Your task to perform on an android device: open app "Nova Launcher" (install if not already installed) Image 0: 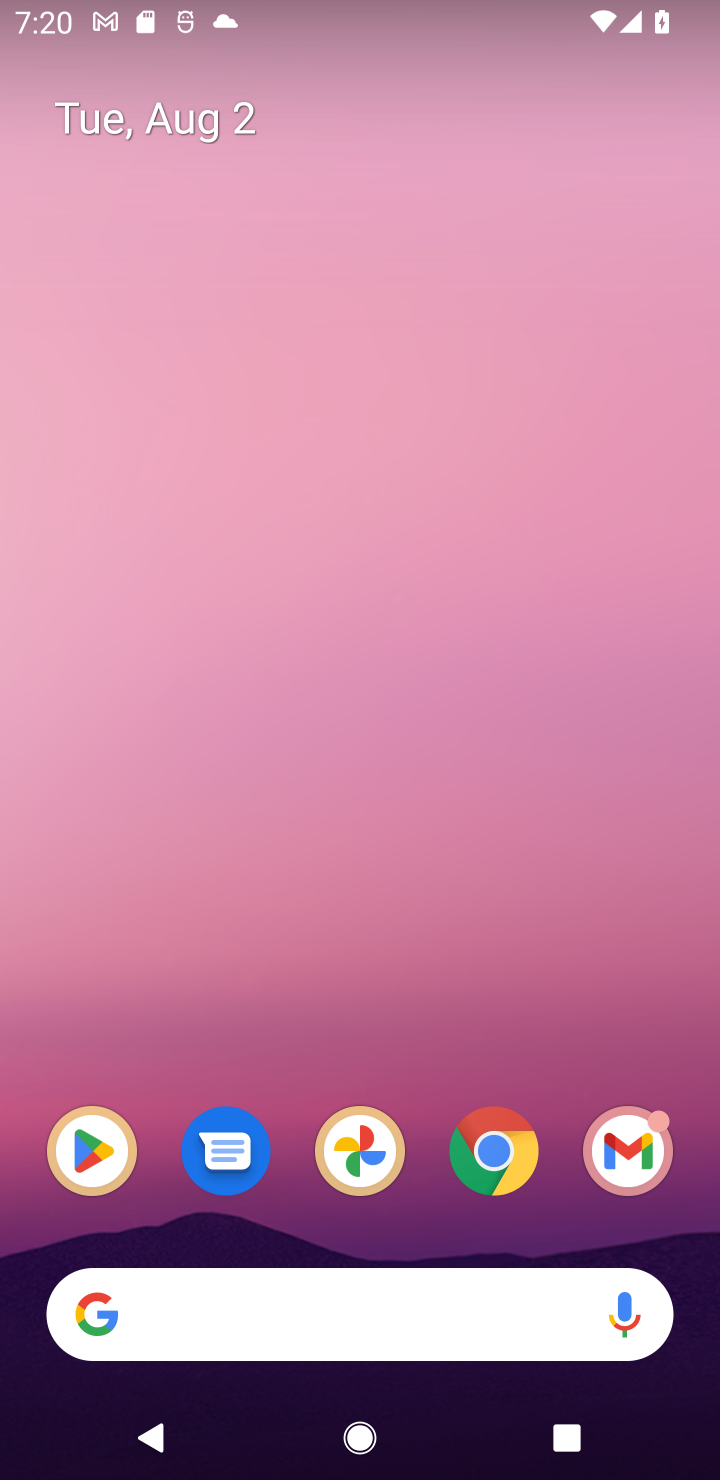
Step 0: click (90, 1154)
Your task to perform on an android device: open app "Nova Launcher" (install if not already installed) Image 1: 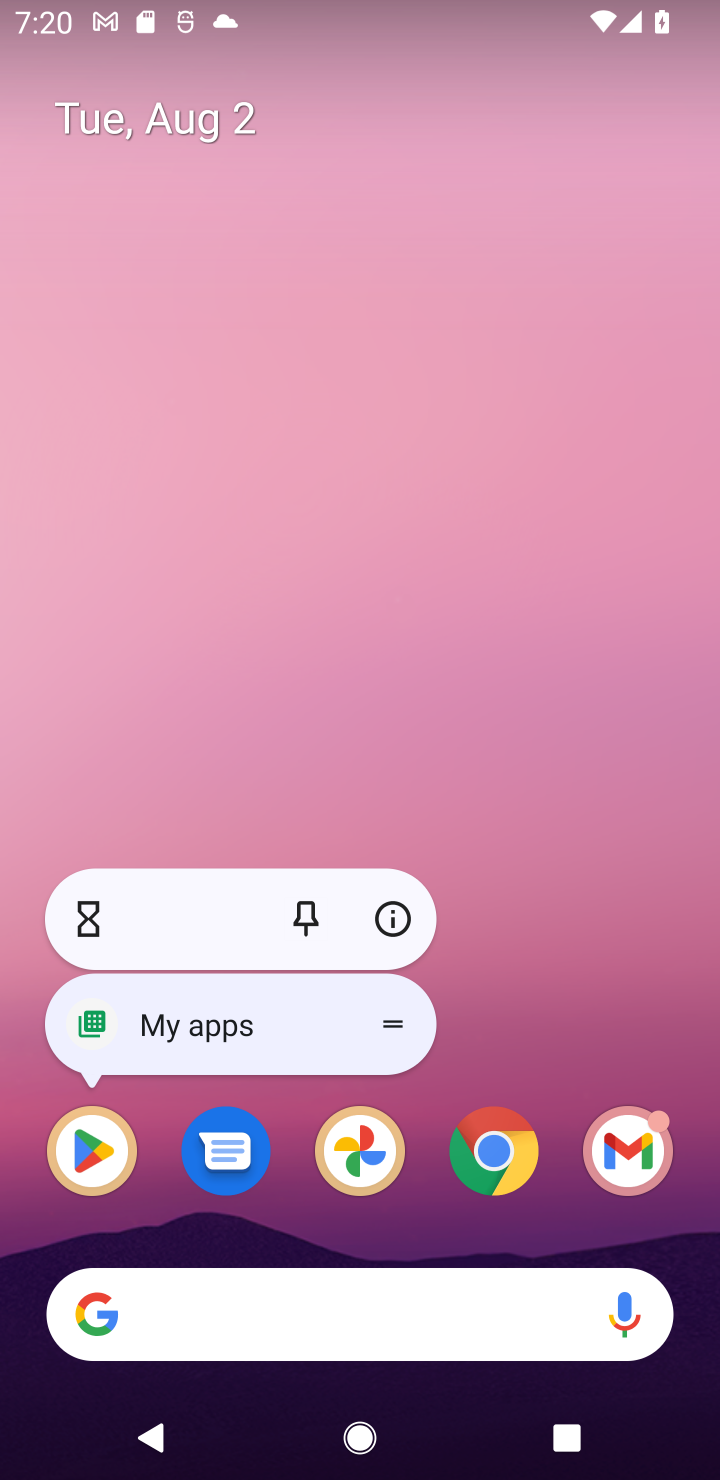
Step 1: click (90, 1154)
Your task to perform on an android device: open app "Nova Launcher" (install if not already installed) Image 2: 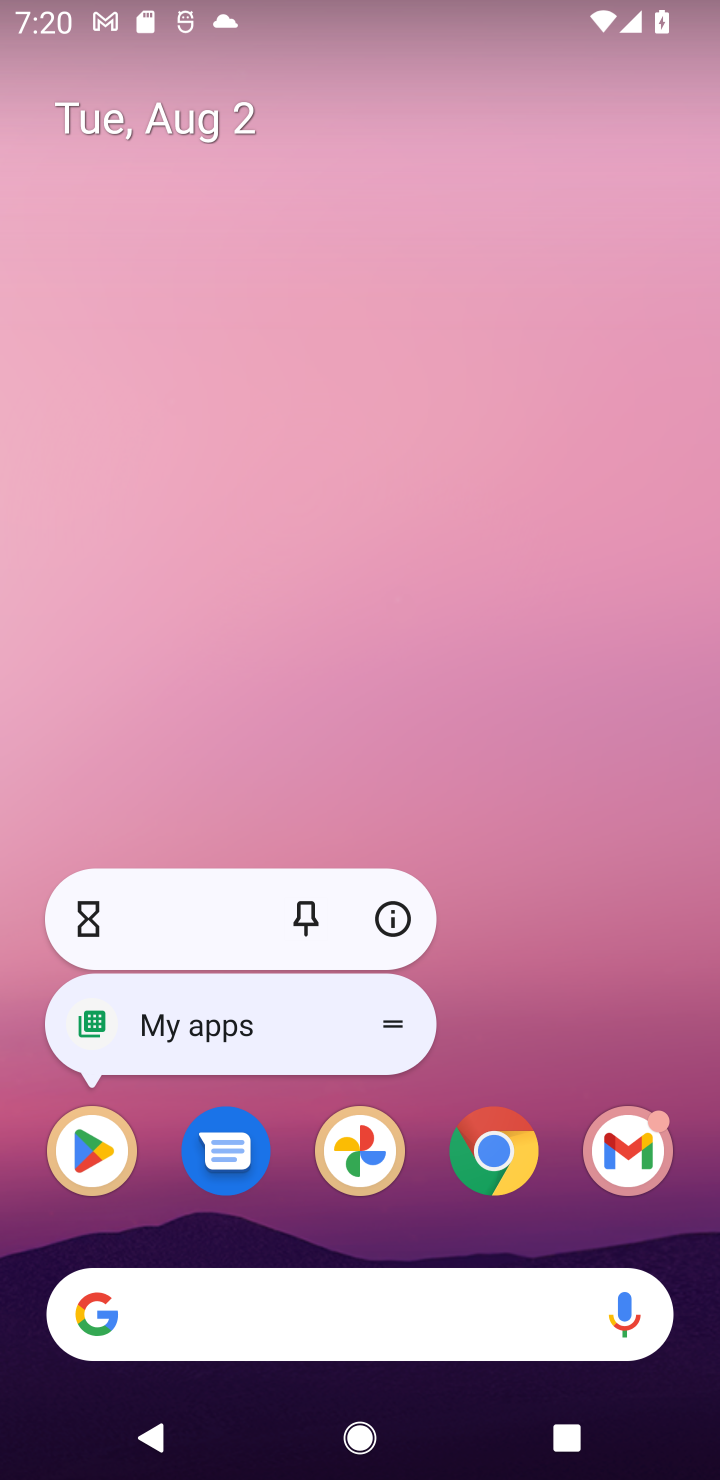
Step 2: click (90, 1154)
Your task to perform on an android device: open app "Nova Launcher" (install if not already installed) Image 3: 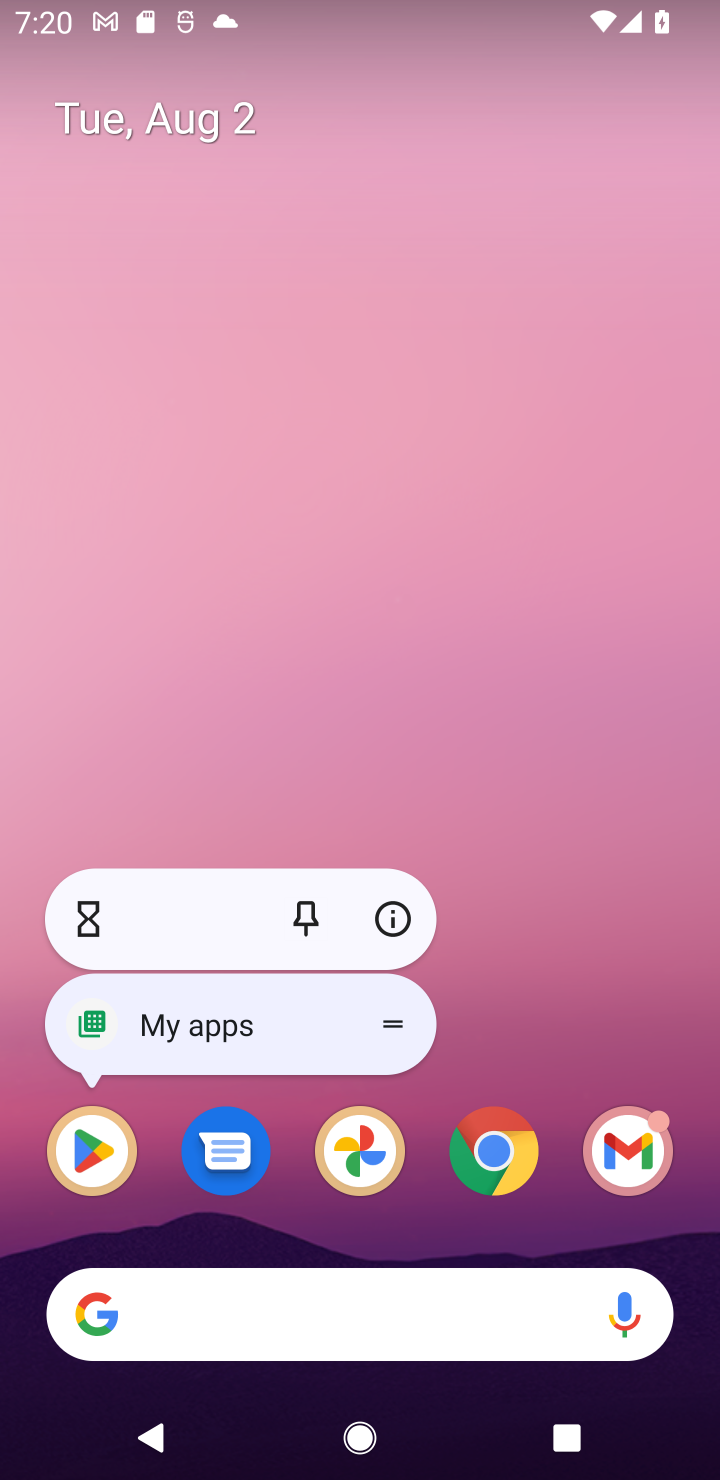
Step 3: click (94, 1166)
Your task to perform on an android device: open app "Nova Launcher" (install if not already installed) Image 4: 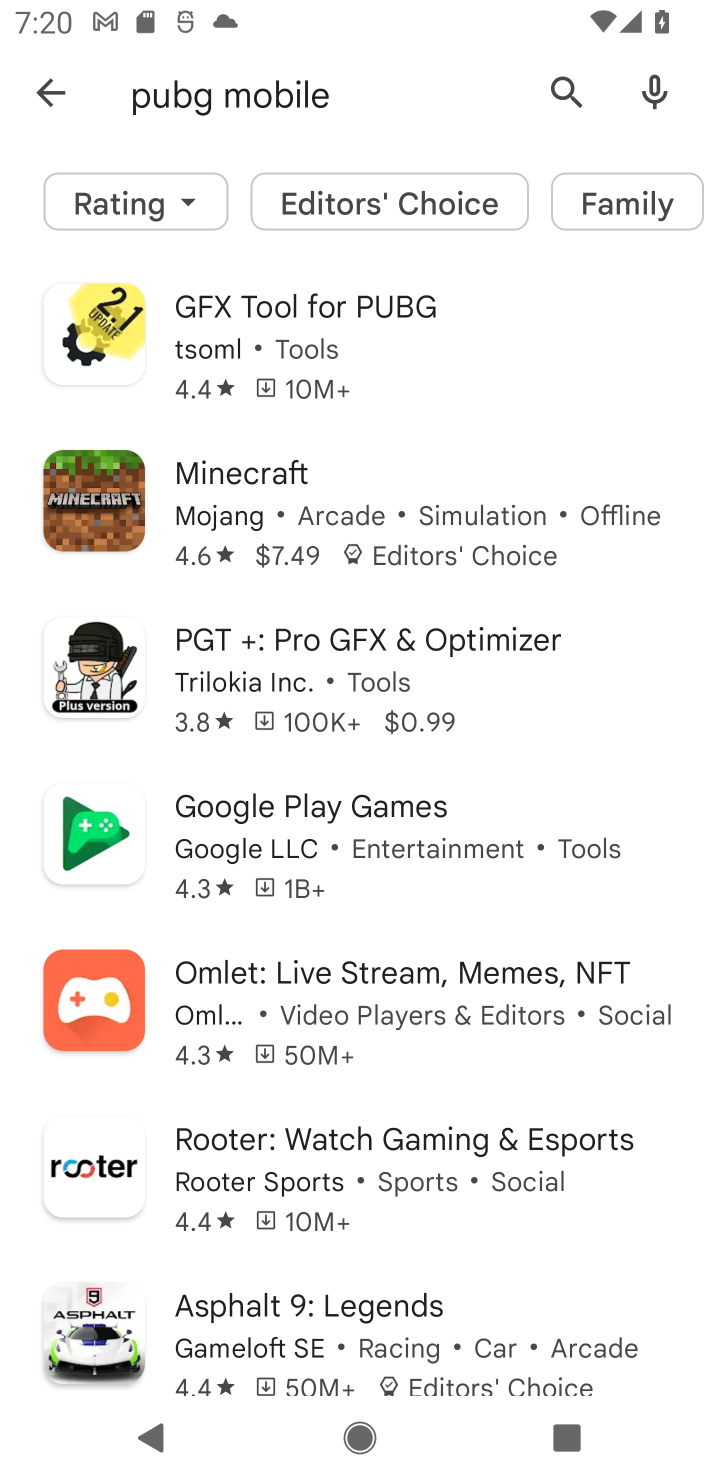
Step 4: click (570, 93)
Your task to perform on an android device: open app "Nova Launcher" (install if not already installed) Image 5: 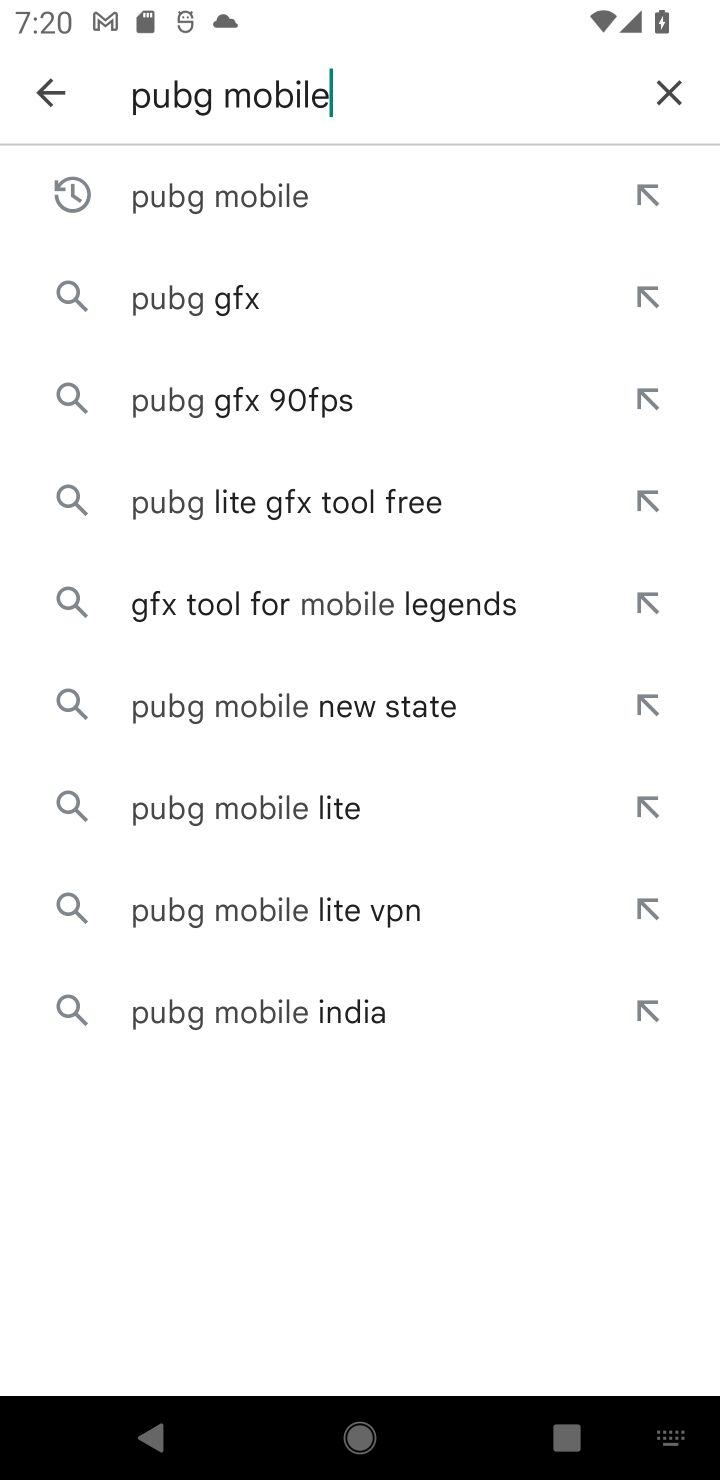
Step 5: click (652, 93)
Your task to perform on an android device: open app "Nova Launcher" (install if not already installed) Image 6: 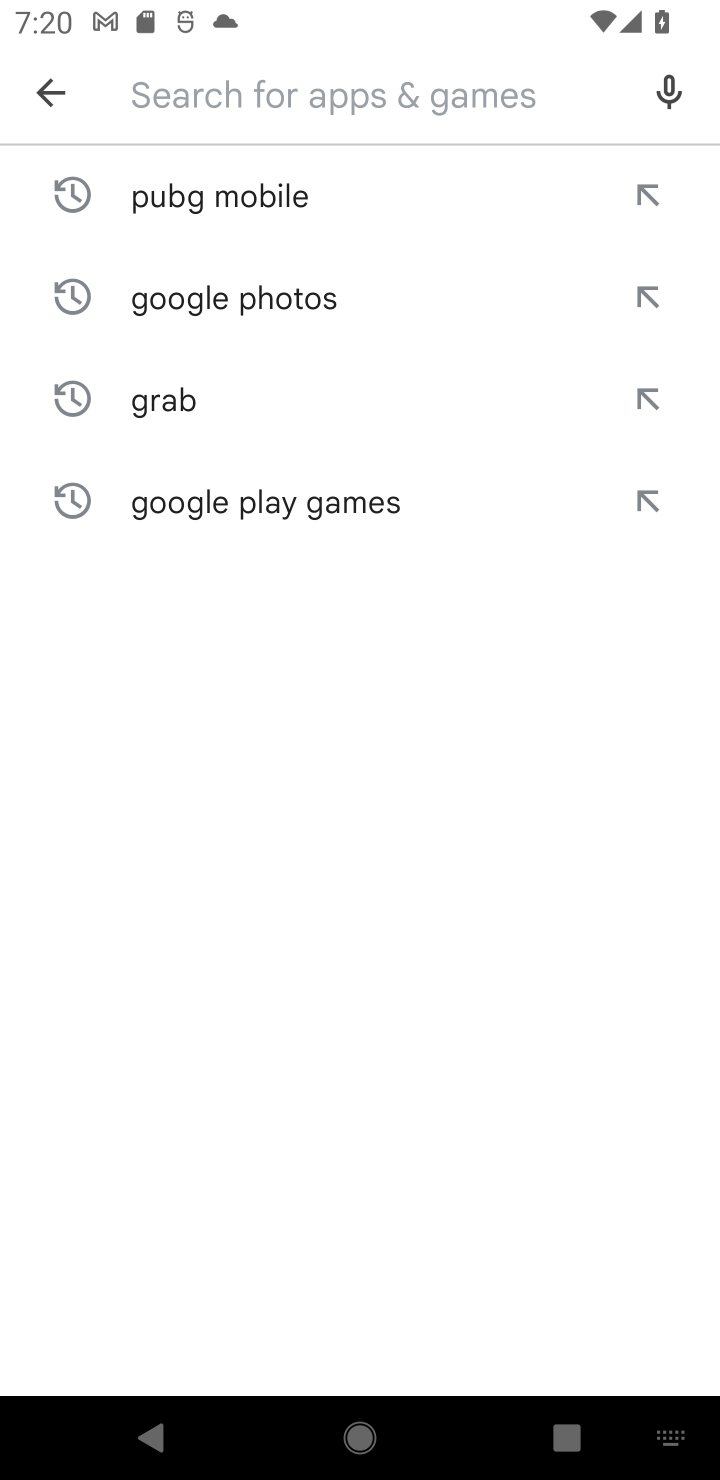
Step 6: type "Nova Launcher"
Your task to perform on an android device: open app "Nova Launcher" (install if not already installed) Image 7: 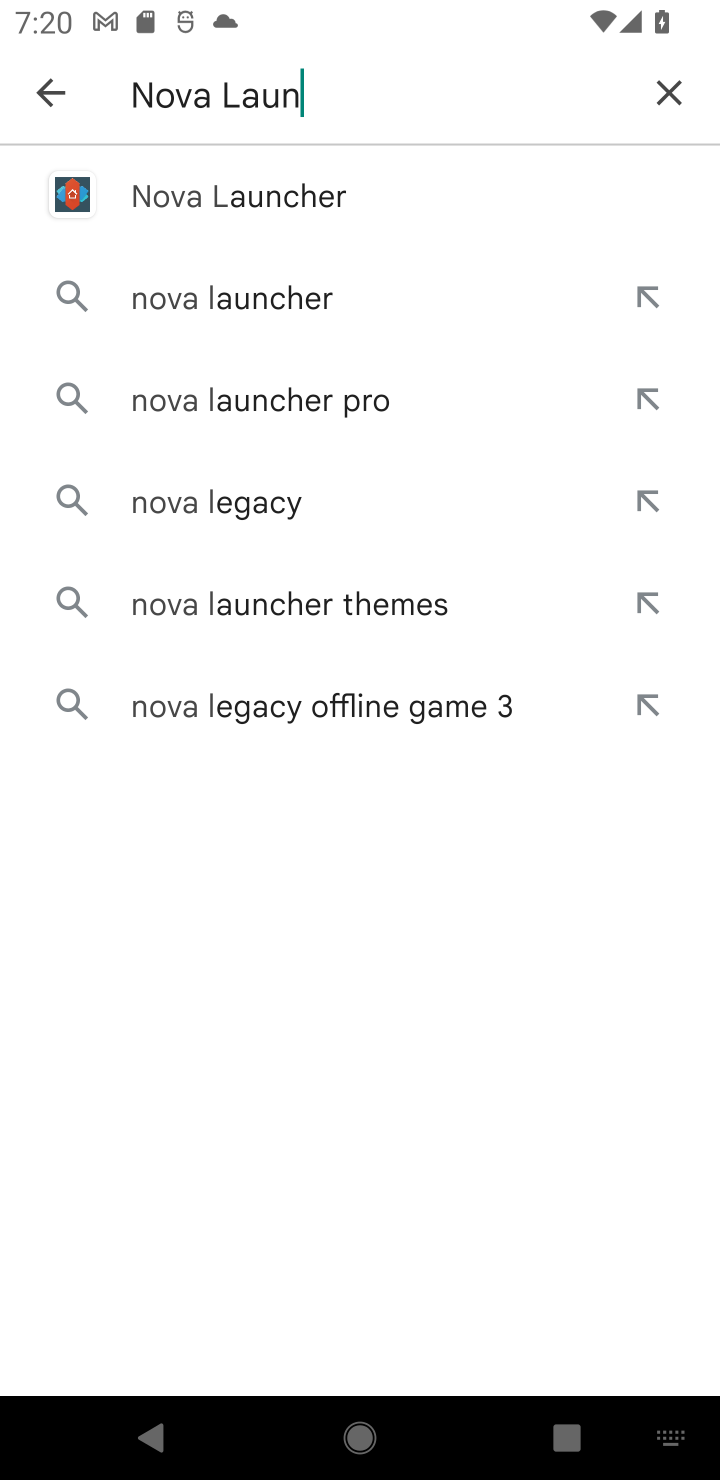
Step 7: type ""
Your task to perform on an android device: open app "Nova Launcher" (install if not already installed) Image 8: 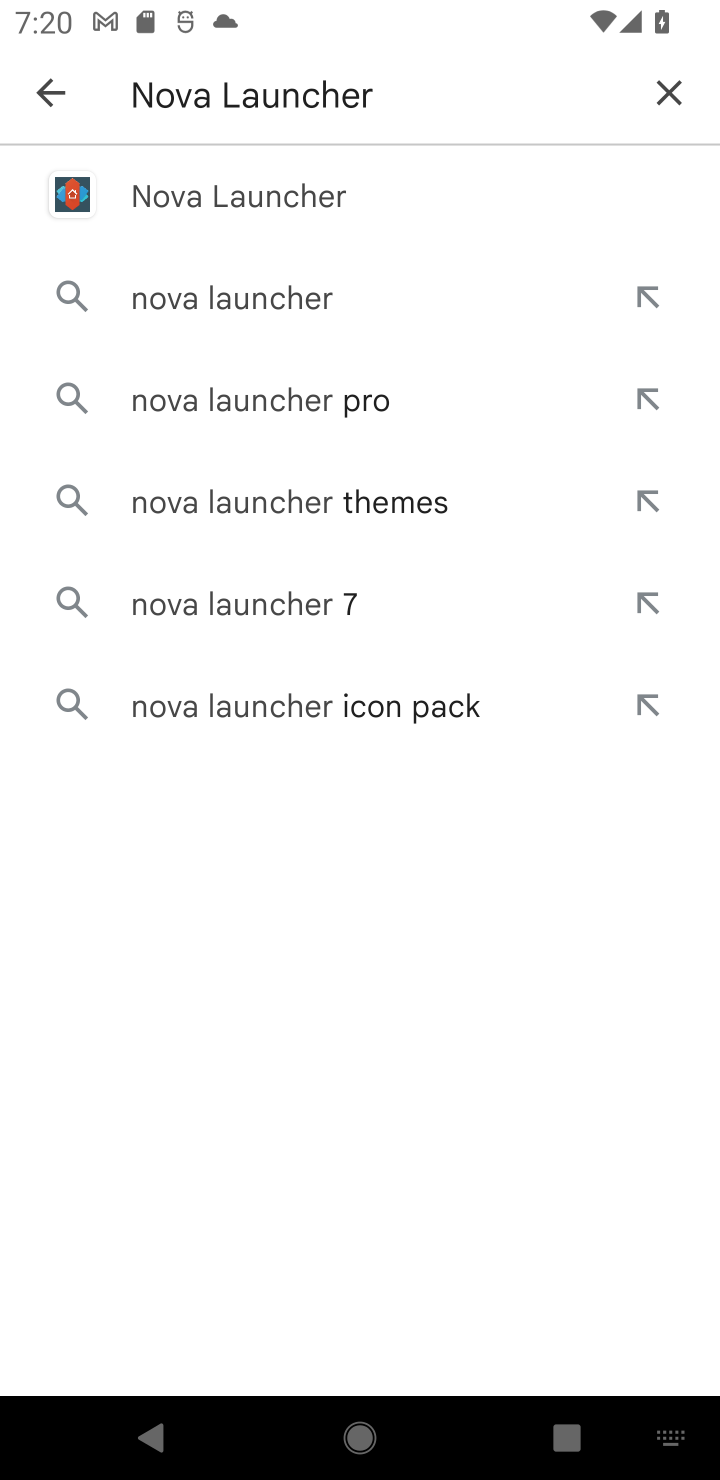
Step 8: click (254, 194)
Your task to perform on an android device: open app "Nova Launcher" (install if not already installed) Image 9: 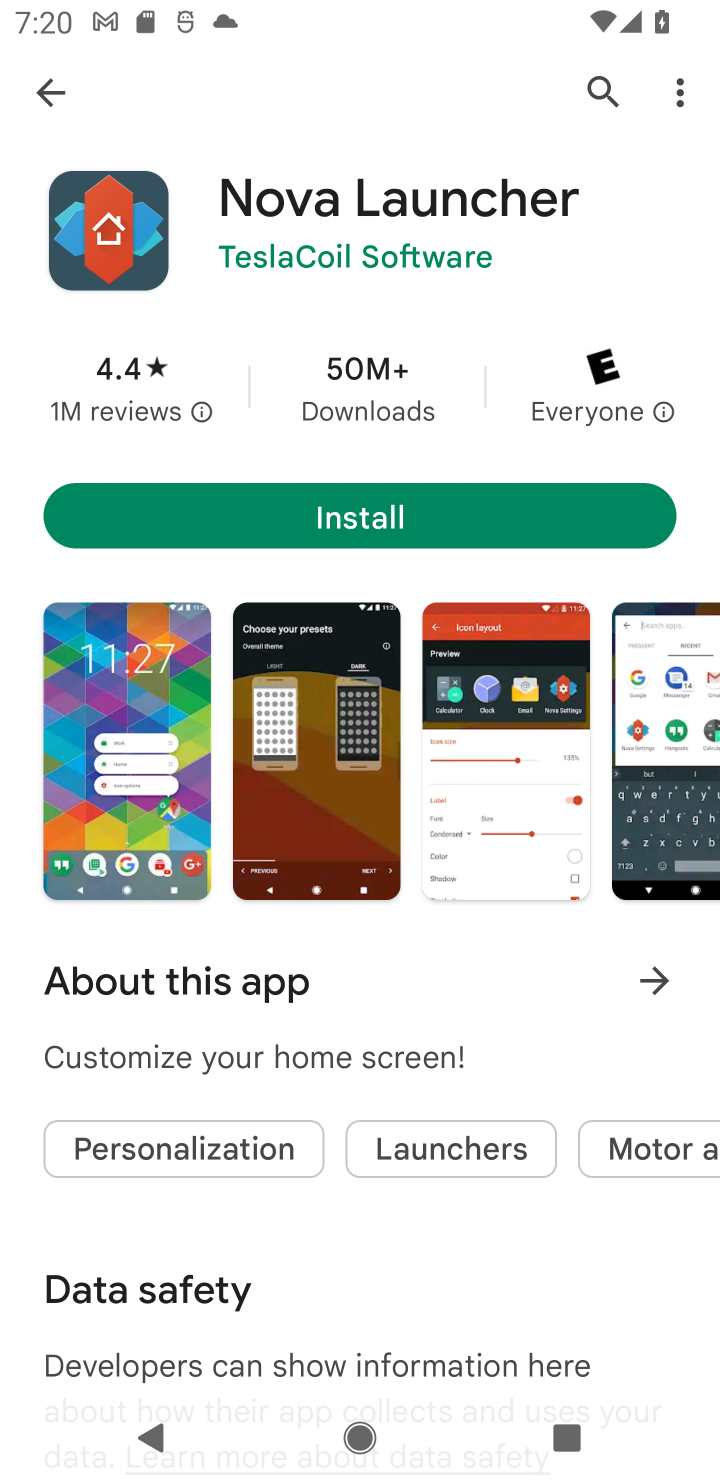
Step 9: click (168, 514)
Your task to perform on an android device: open app "Nova Launcher" (install if not already installed) Image 10: 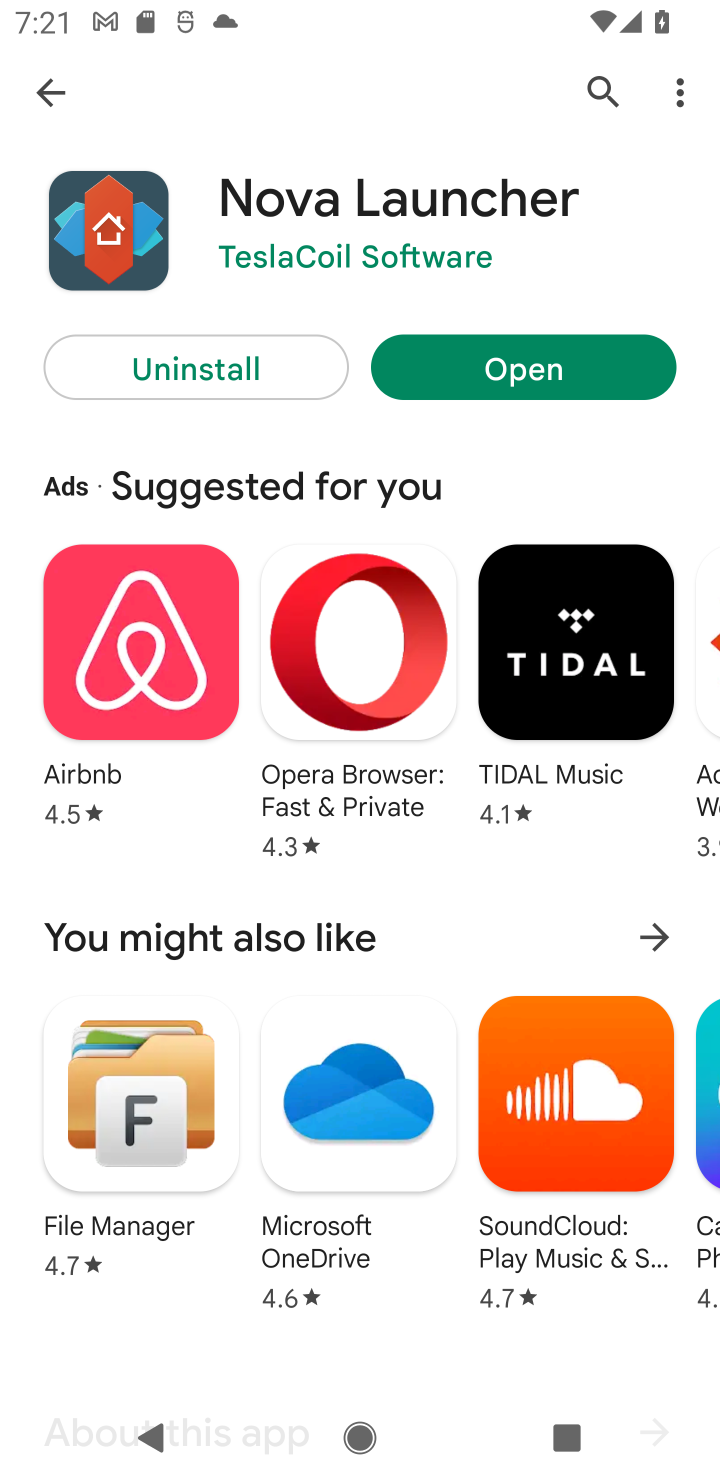
Step 10: click (495, 393)
Your task to perform on an android device: open app "Nova Launcher" (install if not already installed) Image 11: 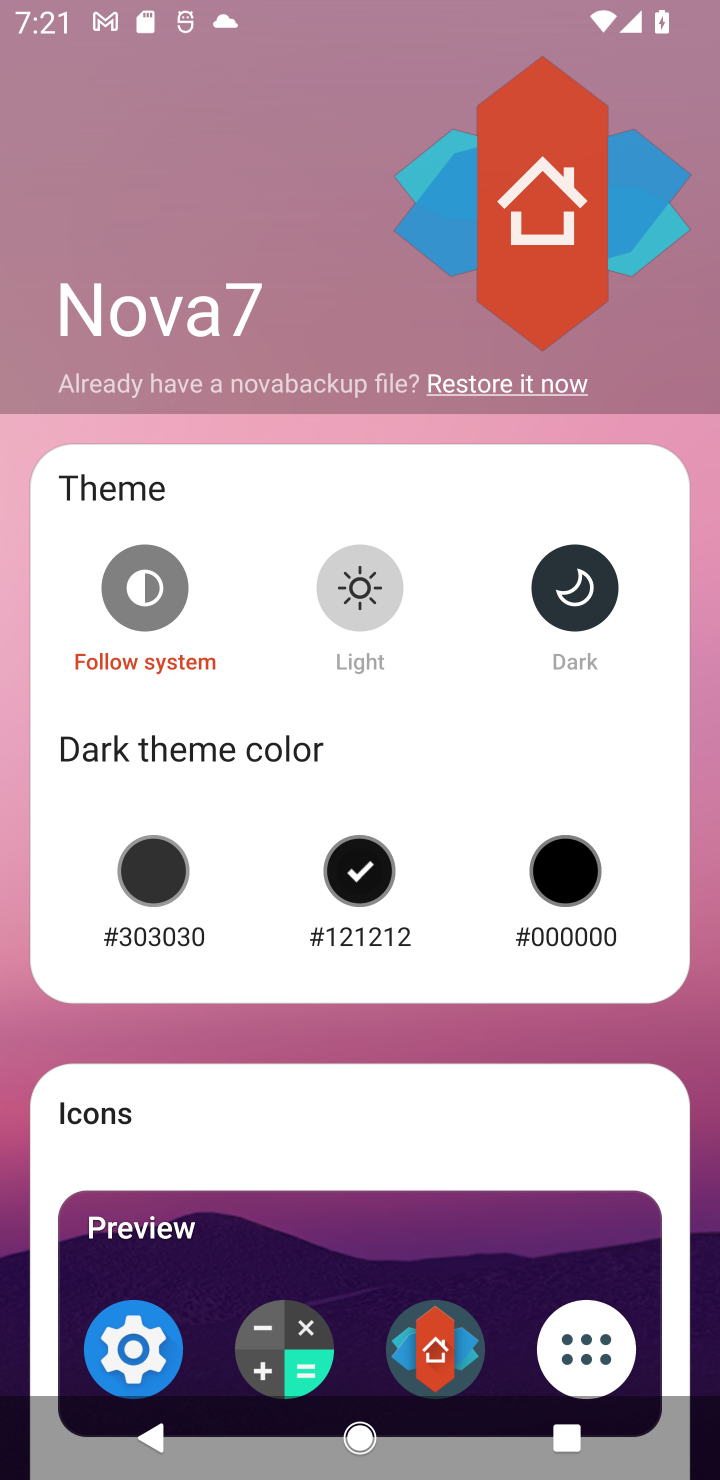
Step 11: task complete